Your task to perform on an android device: Open Google Maps and go to "Timeline" Image 0: 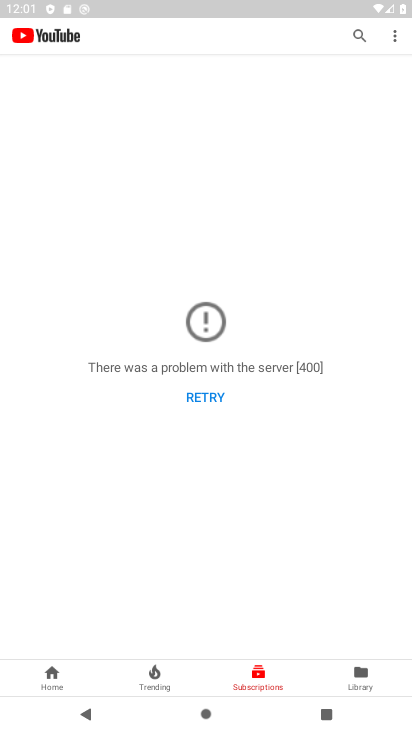
Step 0: press home button
Your task to perform on an android device: Open Google Maps and go to "Timeline" Image 1: 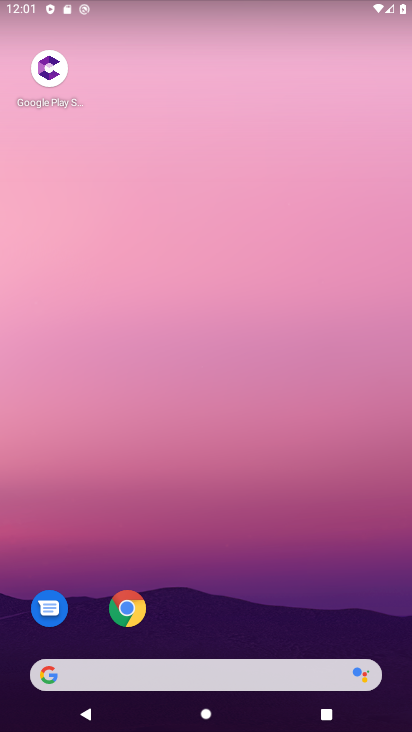
Step 1: drag from (261, 628) to (230, 188)
Your task to perform on an android device: Open Google Maps and go to "Timeline" Image 2: 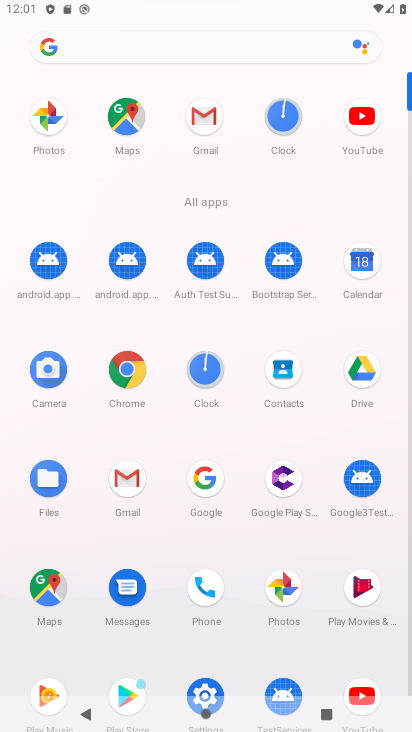
Step 2: click (121, 123)
Your task to perform on an android device: Open Google Maps and go to "Timeline" Image 3: 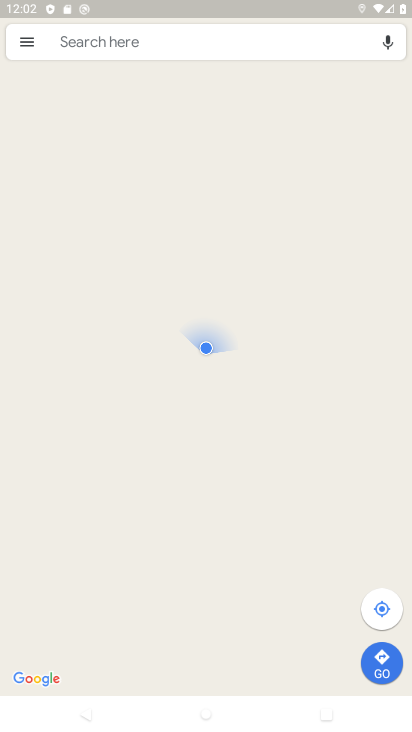
Step 3: click (28, 43)
Your task to perform on an android device: Open Google Maps and go to "Timeline" Image 4: 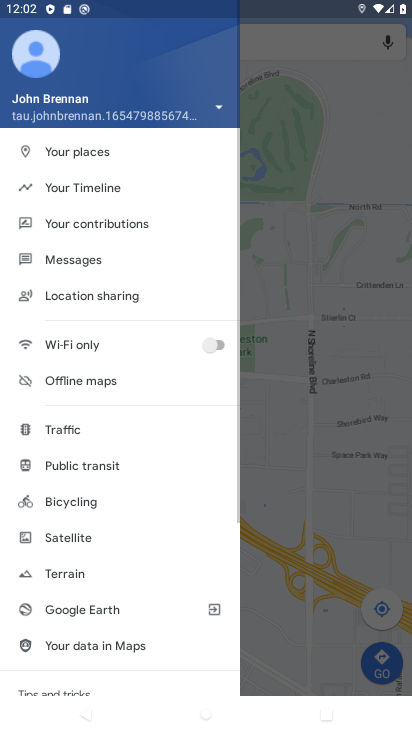
Step 4: click (69, 178)
Your task to perform on an android device: Open Google Maps and go to "Timeline" Image 5: 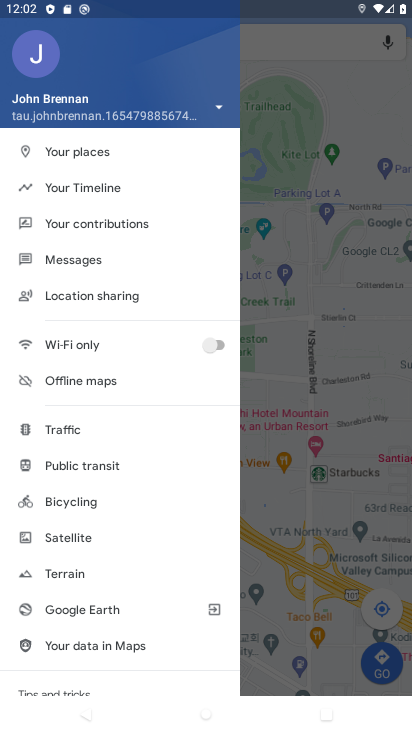
Step 5: click (86, 189)
Your task to perform on an android device: Open Google Maps and go to "Timeline" Image 6: 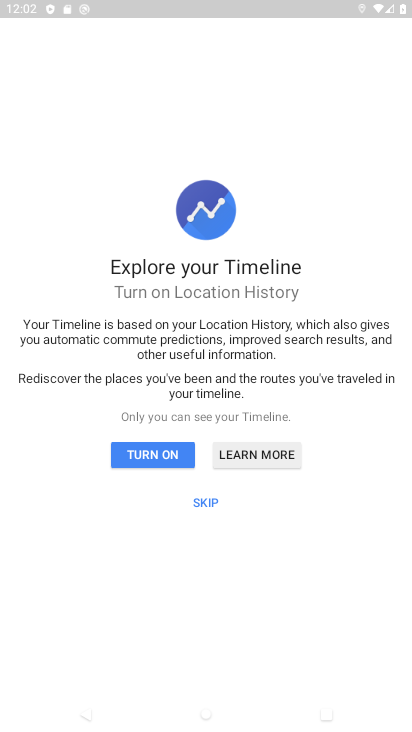
Step 6: click (206, 501)
Your task to perform on an android device: Open Google Maps and go to "Timeline" Image 7: 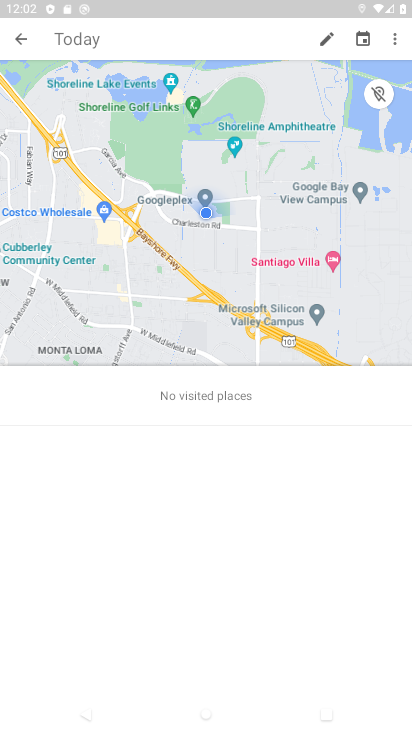
Step 7: task complete